Your task to perform on an android device: turn off notifications in google photos Image 0: 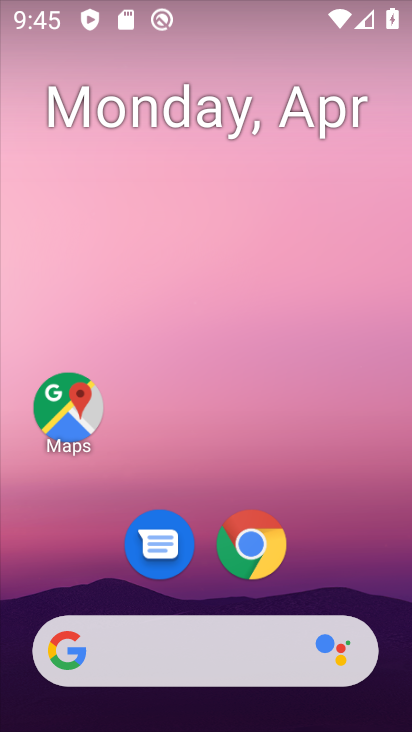
Step 0: drag from (328, 576) to (303, 211)
Your task to perform on an android device: turn off notifications in google photos Image 1: 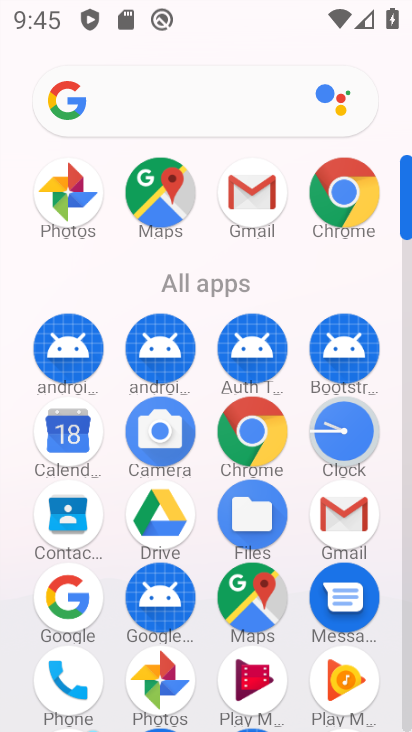
Step 1: click (167, 658)
Your task to perform on an android device: turn off notifications in google photos Image 2: 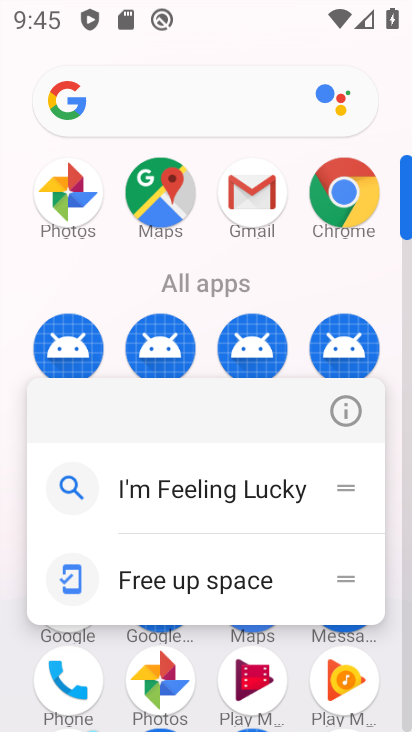
Step 2: click (161, 664)
Your task to perform on an android device: turn off notifications in google photos Image 3: 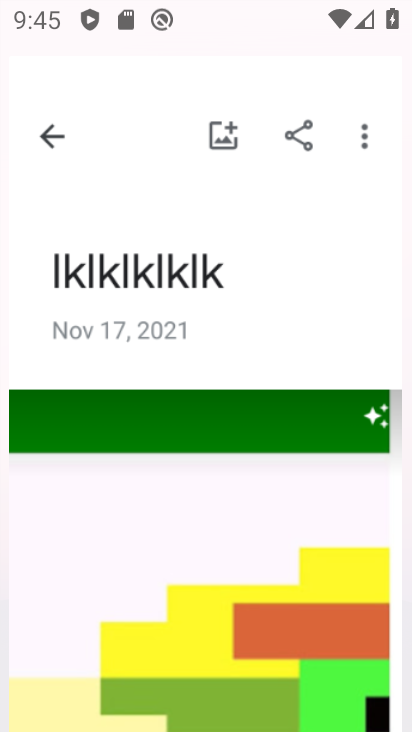
Step 3: click (160, 675)
Your task to perform on an android device: turn off notifications in google photos Image 4: 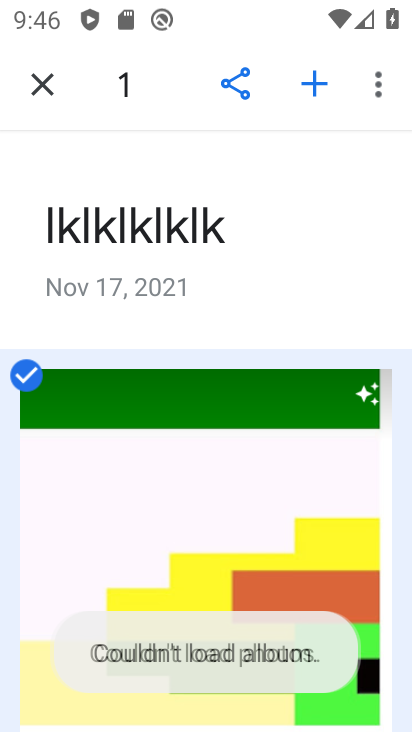
Step 4: press back button
Your task to perform on an android device: turn off notifications in google photos Image 5: 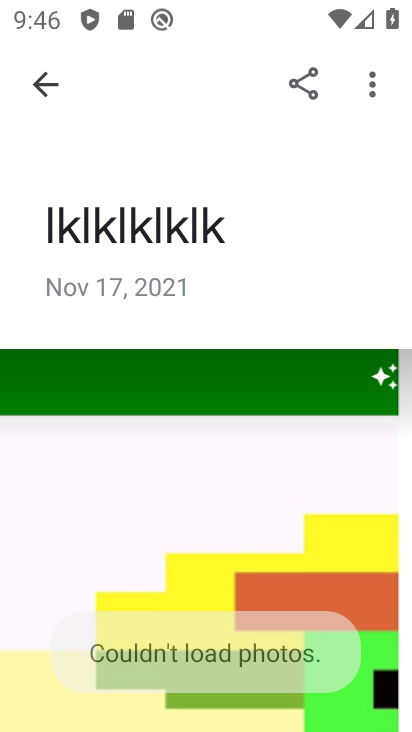
Step 5: press back button
Your task to perform on an android device: turn off notifications in google photos Image 6: 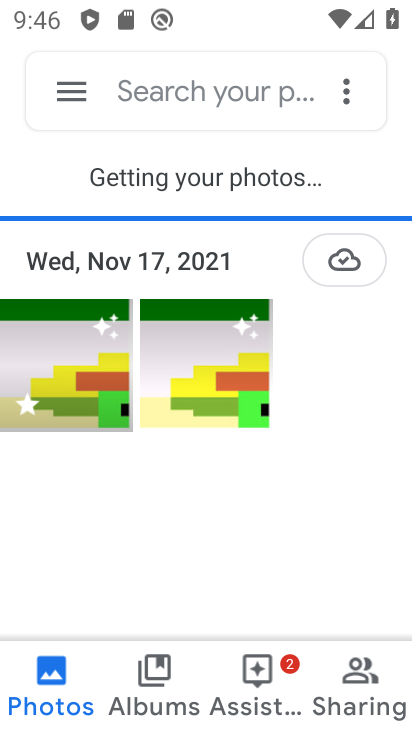
Step 6: click (74, 84)
Your task to perform on an android device: turn off notifications in google photos Image 7: 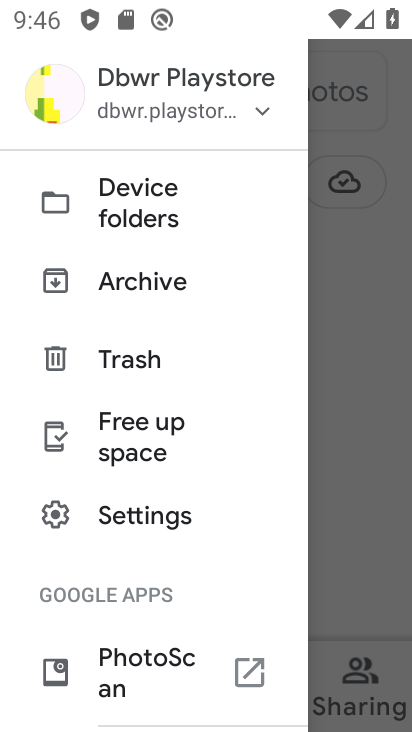
Step 7: click (114, 518)
Your task to perform on an android device: turn off notifications in google photos Image 8: 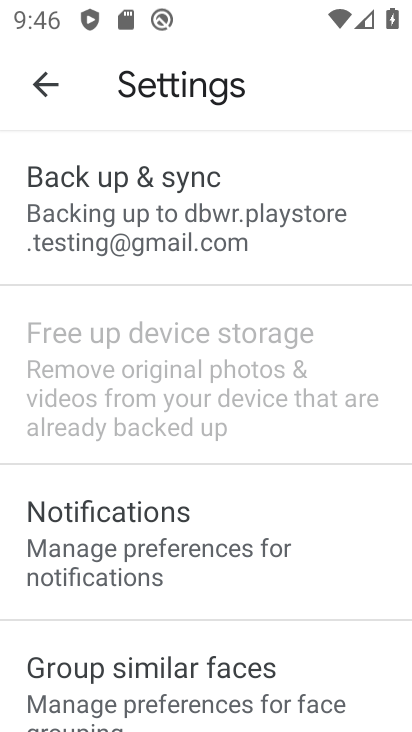
Step 8: click (202, 526)
Your task to perform on an android device: turn off notifications in google photos Image 9: 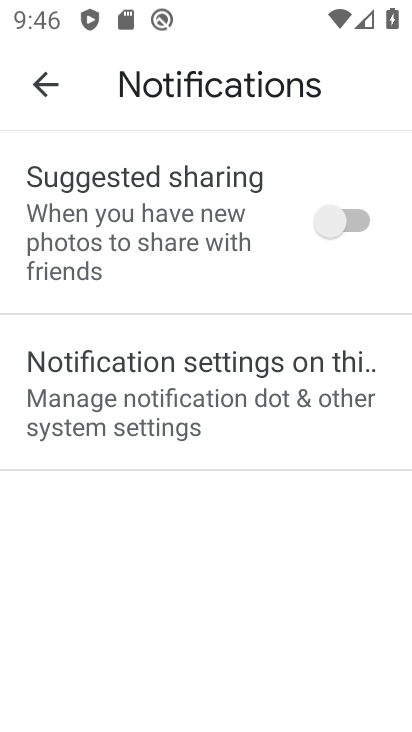
Step 9: click (287, 369)
Your task to perform on an android device: turn off notifications in google photos Image 10: 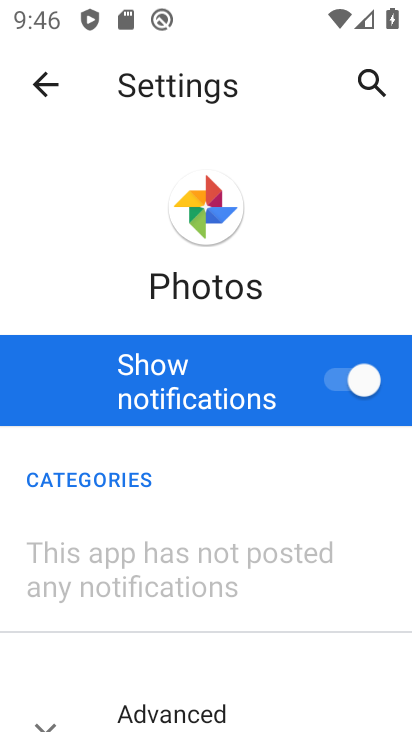
Step 10: task complete